Your task to perform on an android device: search for starred emails in the gmail app Image 0: 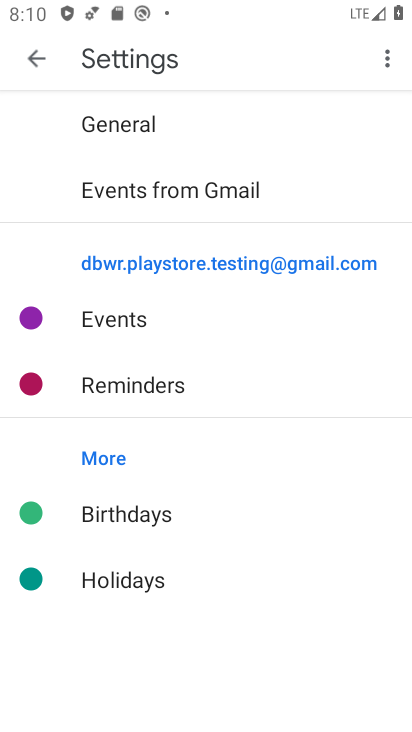
Step 0: press home button
Your task to perform on an android device: search for starred emails in the gmail app Image 1: 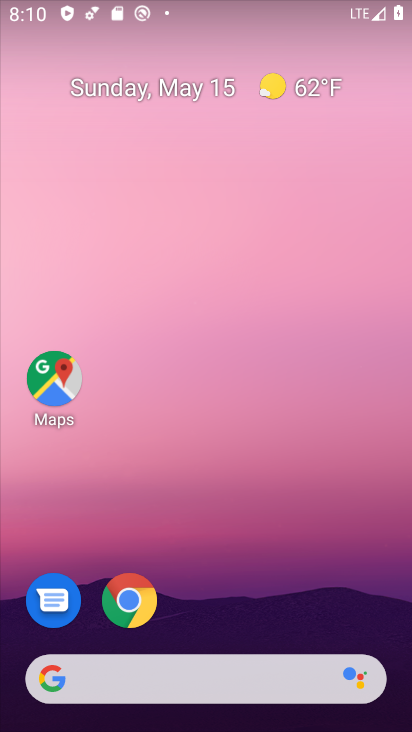
Step 1: drag from (196, 622) to (89, 82)
Your task to perform on an android device: search for starred emails in the gmail app Image 2: 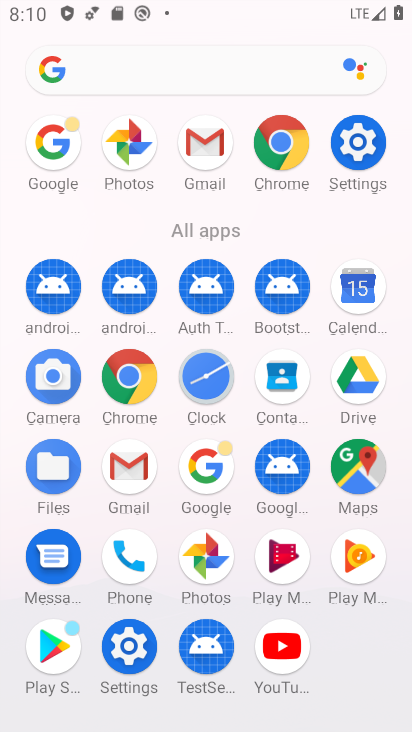
Step 2: click (204, 148)
Your task to perform on an android device: search for starred emails in the gmail app Image 3: 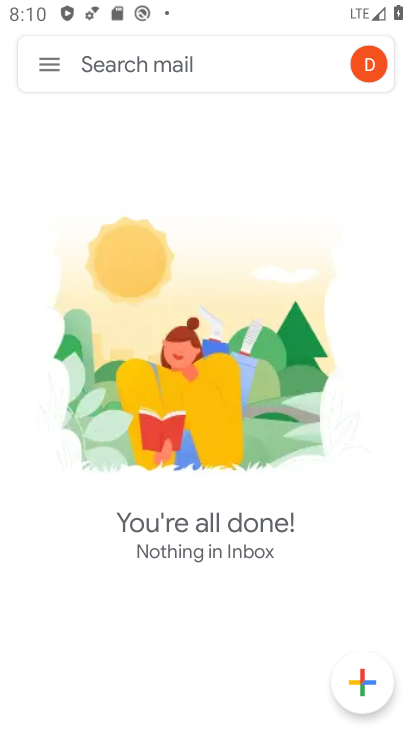
Step 3: click (56, 66)
Your task to perform on an android device: search for starred emails in the gmail app Image 4: 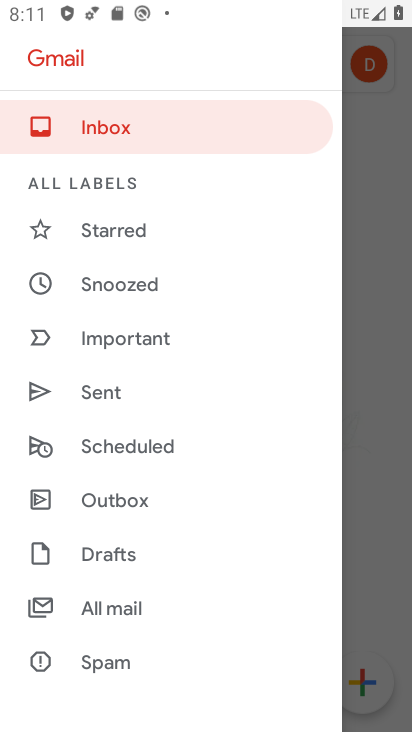
Step 4: click (93, 231)
Your task to perform on an android device: search for starred emails in the gmail app Image 5: 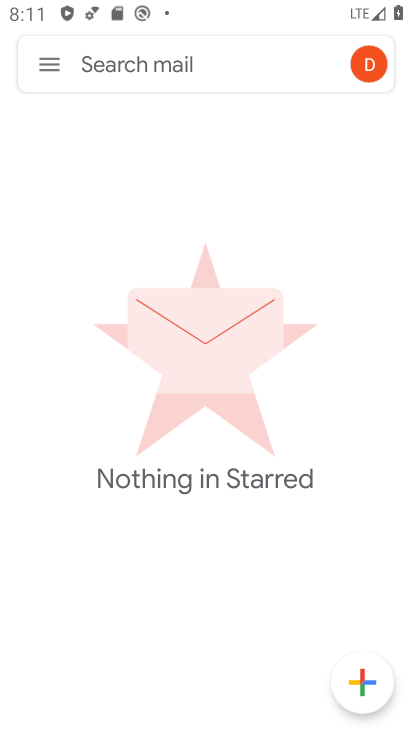
Step 5: task complete